Your task to perform on an android device: turn on wifi Image 0: 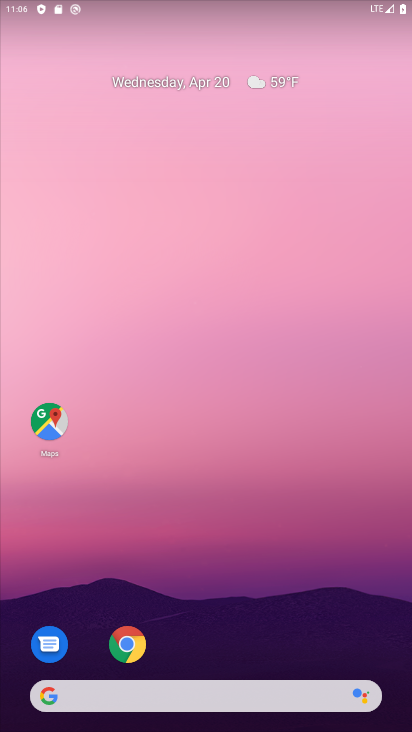
Step 0: drag from (316, 15) to (287, 422)
Your task to perform on an android device: turn on wifi Image 1: 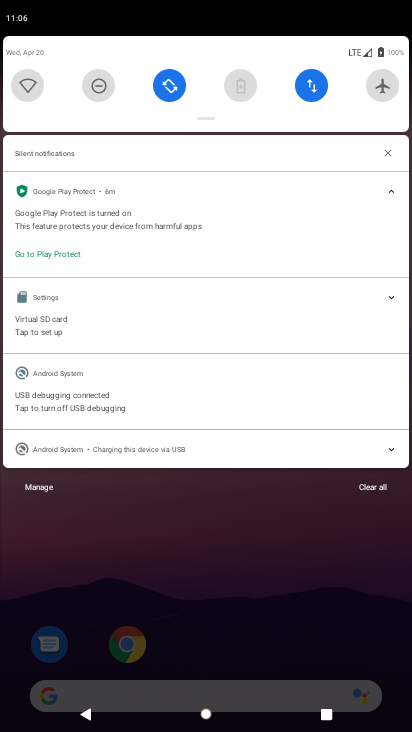
Step 1: click (27, 97)
Your task to perform on an android device: turn on wifi Image 2: 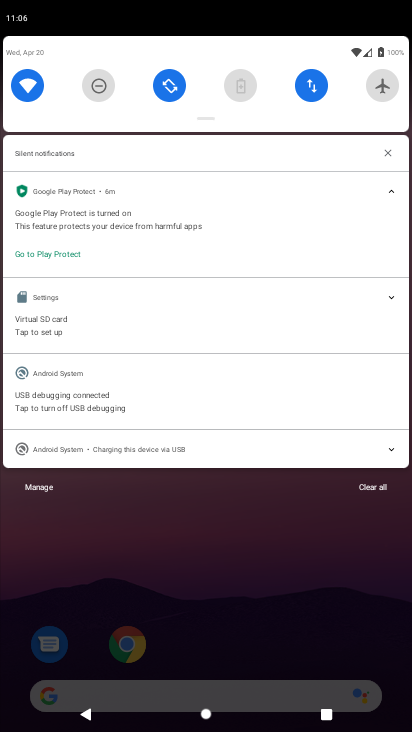
Step 2: task complete